Your task to perform on an android device: Open the map Image 0: 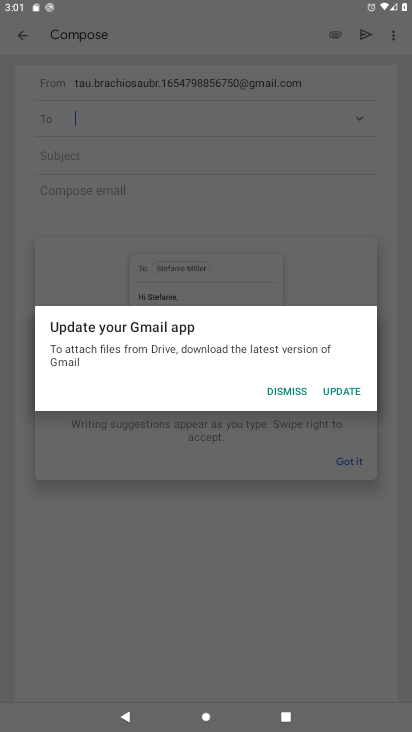
Step 0: press home button
Your task to perform on an android device: Open the map Image 1: 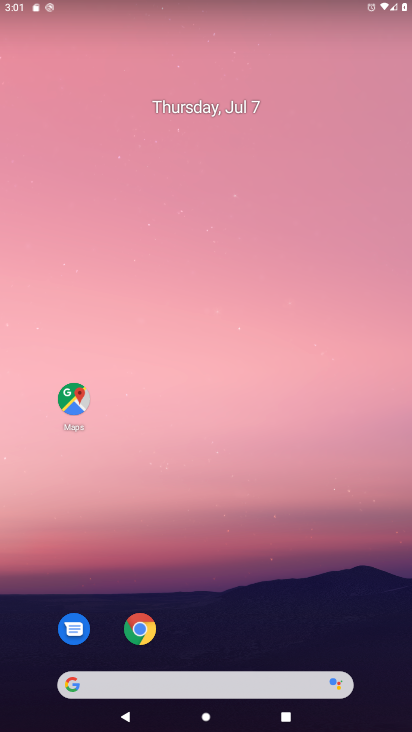
Step 1: drag from (241, 632) to (180, 375)
Your task to perform on an android device: Open the map Image 2: 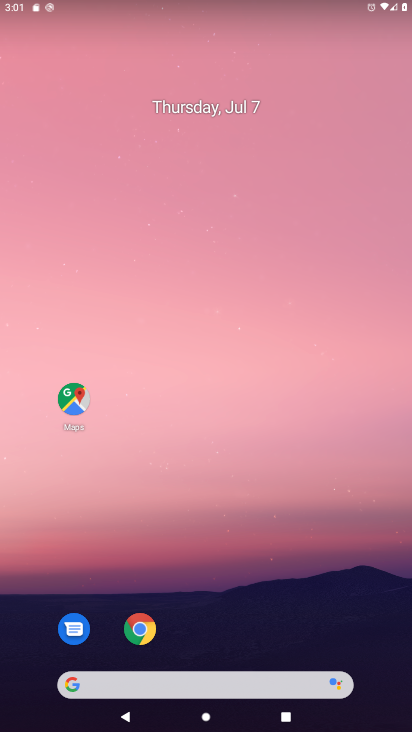
Step 2: click (61, 395)
Your task to perform on an android device: Open the map Image 3: 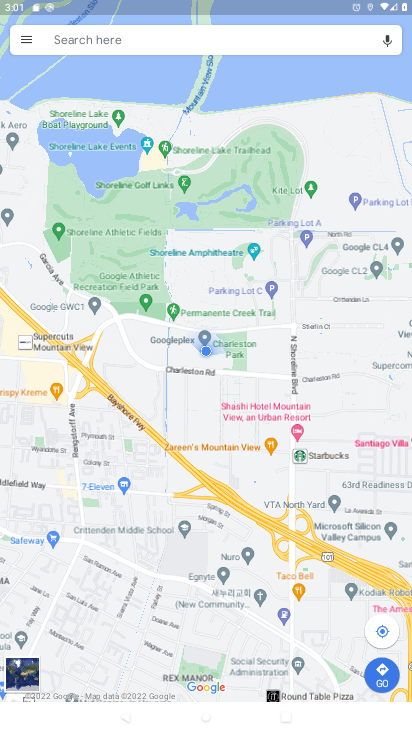
Step 3: task complete